Your task to perform on an android device: open a new tab in the chrome app Image 0: 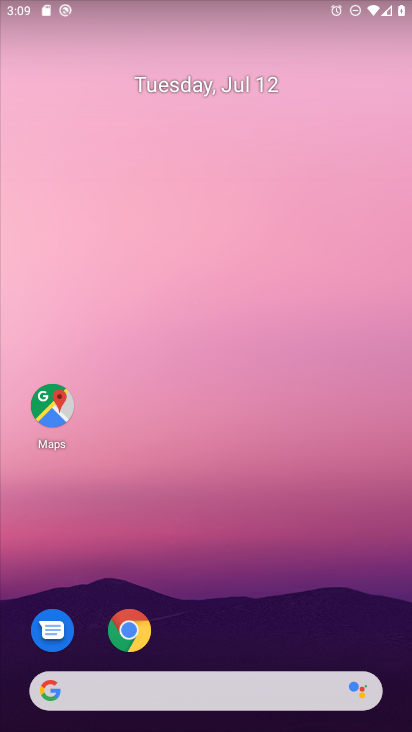
Step 0: click (151, 629)
Your task to perform on an android device: open a new tab in the chrome app Image 1: 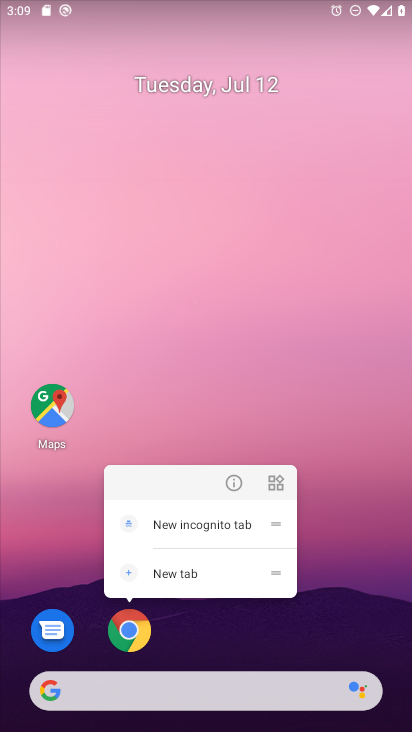
Step 1: click (154, 616)
Your task to perform on an android device: open a new tab in the chrome app Image 2: 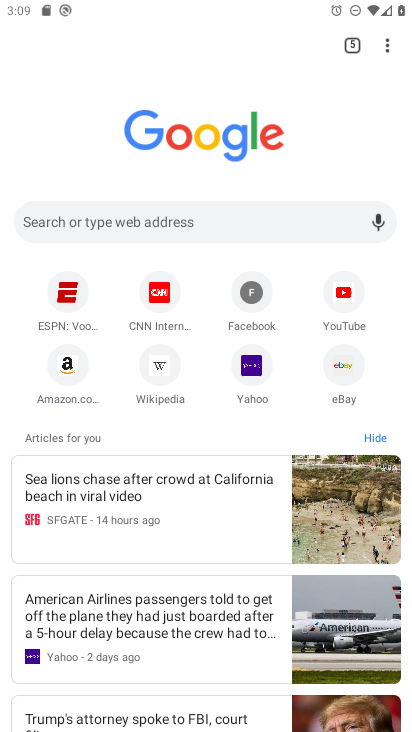
Step 2: click (355, 46)
Your task to perform on an android device: open a new tab in the chrome app Image 3: 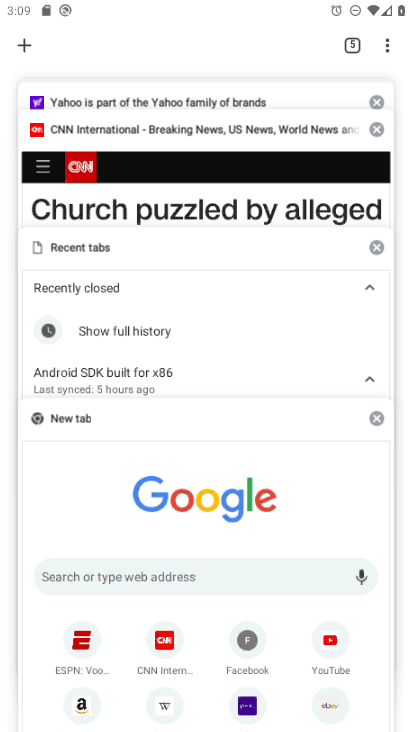
Step 3: click (17, 42)
Your task to perform on an android device: open a new tab in the chrome app Image 4: 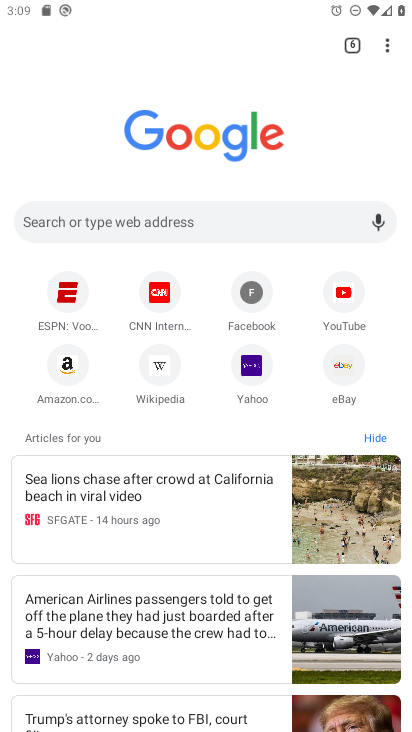
Step 4: task complete